Your task to perform on an android device: Open sound settings Image 0: 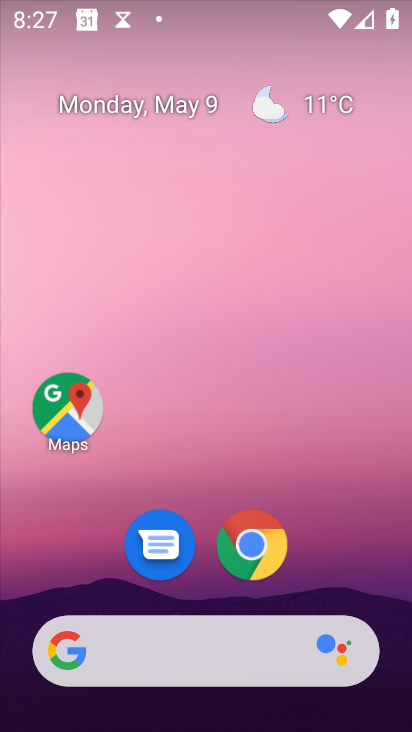
Step 0: drag from (216, 720) to (215, 128)
Your task to perform on an android device: Open sound settings Image 1: 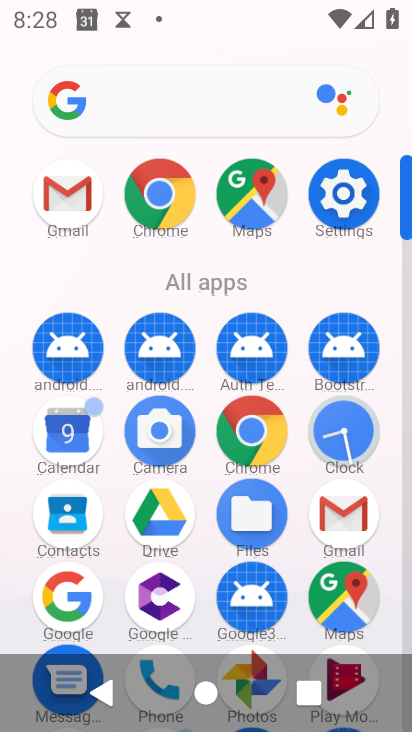
Step 1: click (347, 195)
Your task to perform on an android device: Open sound settings Image 2: 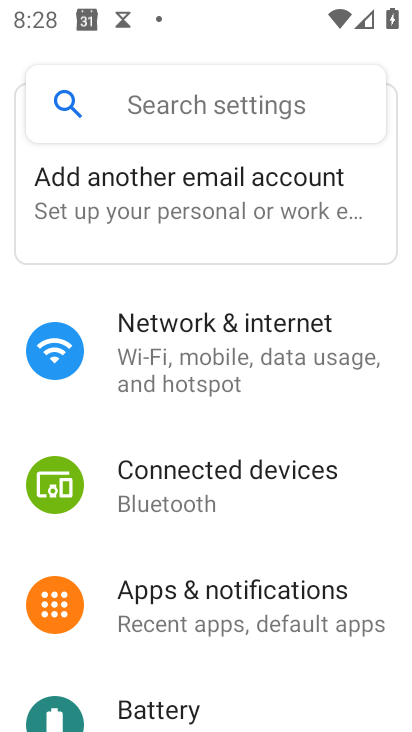
Step 2: drag from (240, 700) to (247, 331)
Your task to perform on an android device: Open sound settings Image 3: 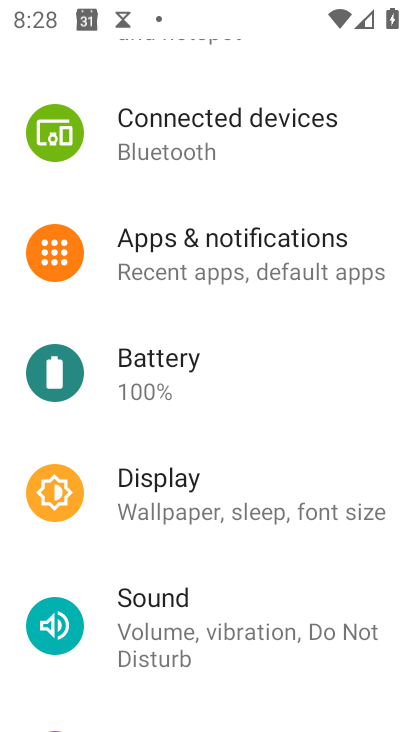
Step 3: click (145, 608)
Your task to perform on an android device: Open sound settings Image 4: 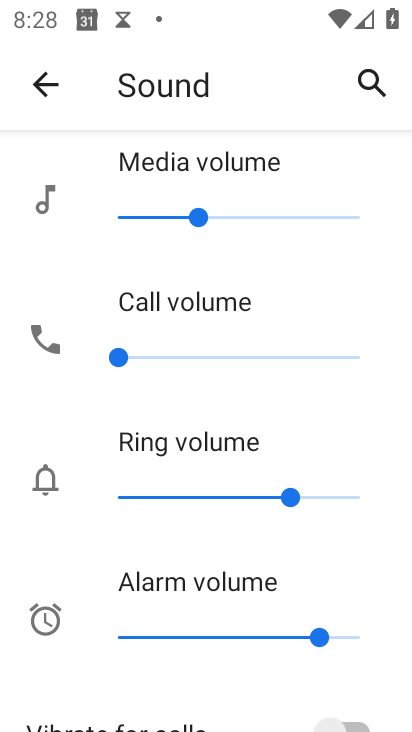
Step 4: task complete